Your task to perform on an android device: Do I have any events today? Image 0: 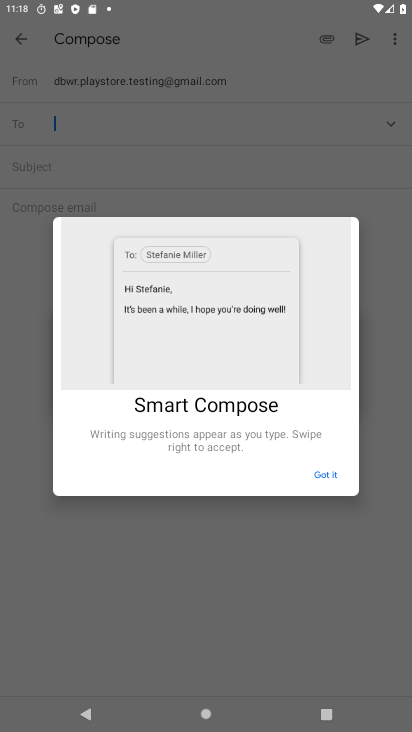
Step 0: press home button
Your task to perform on an android device: Do I have any events today? Image 1: 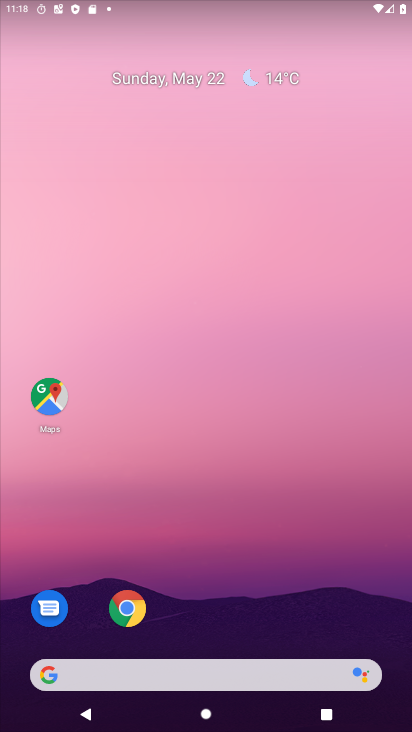
Step 1: drag from (223, 724) to (223, 149)
Your task to perform on an android device: Do I have any events today? Image 2: 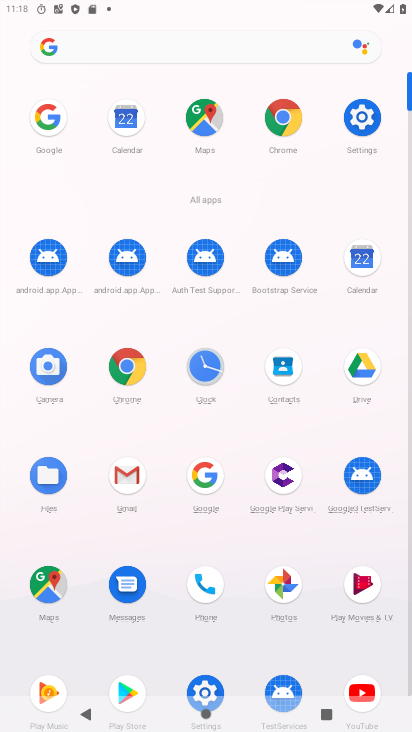
Step 2: click (362, 261)
Your task to perform on an android device: Do I have any events today? Image 3: 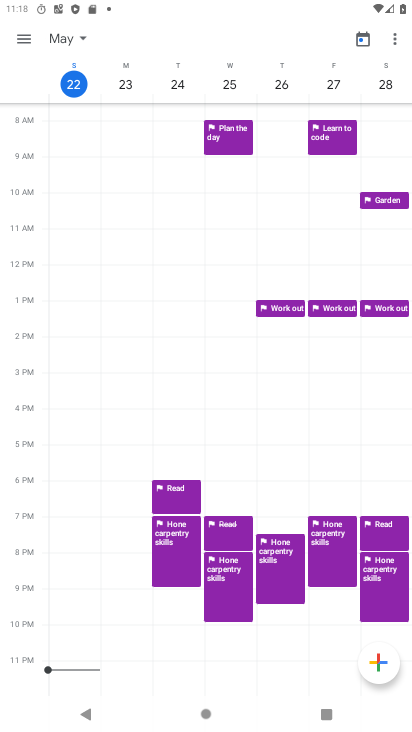
Step 3: click (74, 78)
Your task to perform on an android device: Do I have any events today? Image 4: 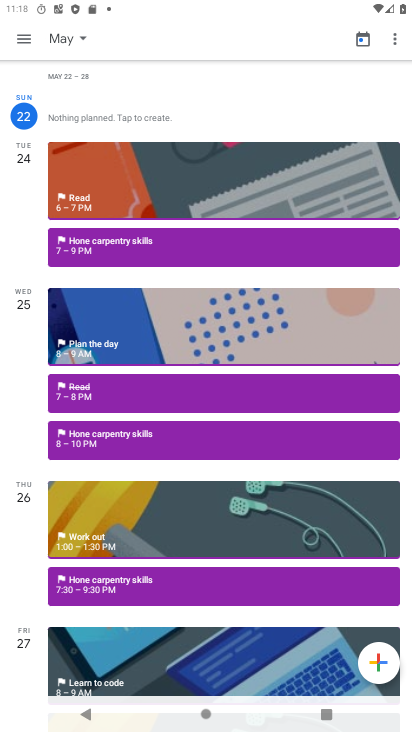
Step 4: task complete